Your task to perform on an android device: Search for macbook air on walmart.com, select the first entry, add it to the cart, then select checkout. Image 0: 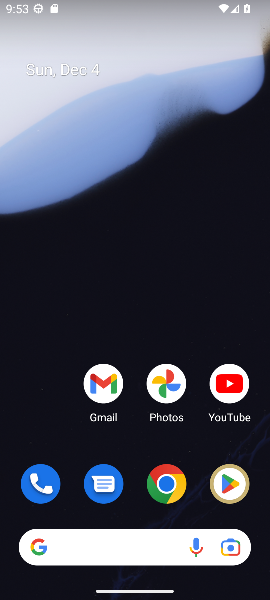
Step 0: click (169, 486)
Your task to perform on an android device: Search for macbook air on walmart.com, select the first entry, add it to the cart, then select checkout. Image 1: 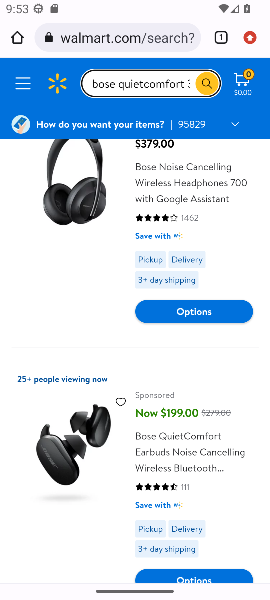
Step 1: click (141, 83)
Your task to perform on an android device: Search for macbook air on walmart.com, select the first entry, add it to the cart, then select checkout. Image 2: 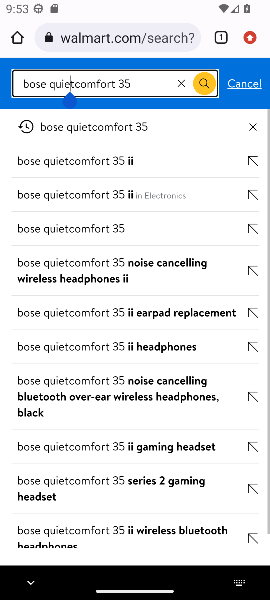
Step 2: click (184, 83)
Your task to perform on an android device: Search for macbook air on walmart.com, select the first entry, add it to the cart, then select checkout. Image 3: 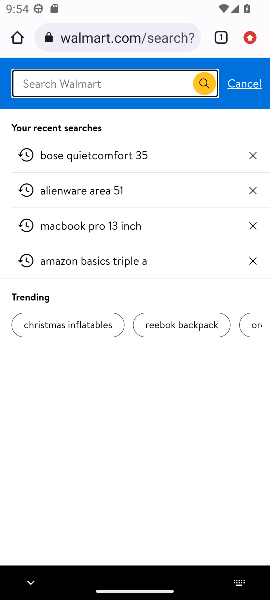
Step 3: type "macbook air"
Your task to perform on an android device: Search for macbook air on walmart.com, select the first entry, add it to the cart, then select checkout. Image 4: 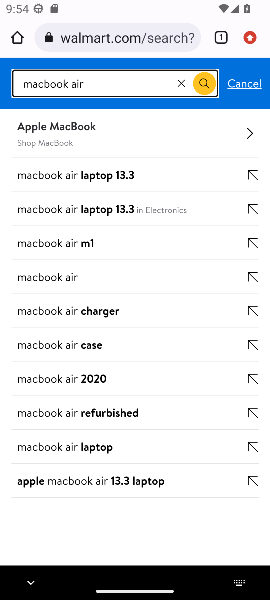
Step 4: click (200, 85)
Your task to perform on an android device: Search for macbook air on walmart.com, select the first entry, add it to the cart, then select checkout. Image 5: 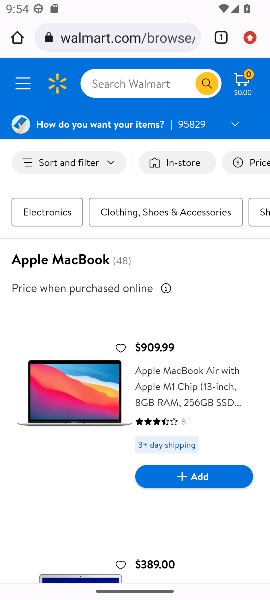
Step 5: drag from (150, 345) to (158, 215)
Your task to perform on an android device: Search for macbook air on walmart.com, select the first entry, add it to the cart, then select checkout. Image 6: 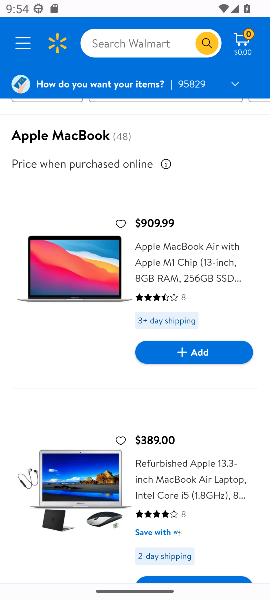
Step 6: click (187, 351)
Your task to perform on an android device: Search for macbook air on walmart.com, select the first entry, add it to the cart, then select checkout. Image 7: 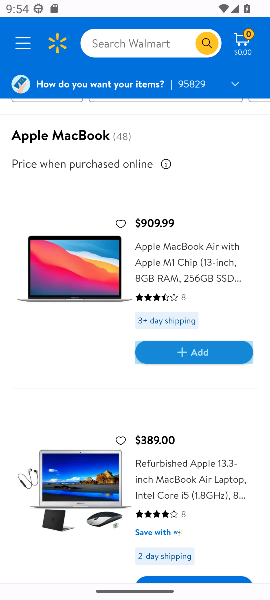
Step 7: click (191, 352)
Your task to perform on an android device: Search for macbook air on walmart.com, select the first entry, add it to the cart, then select checkout. Image 8: 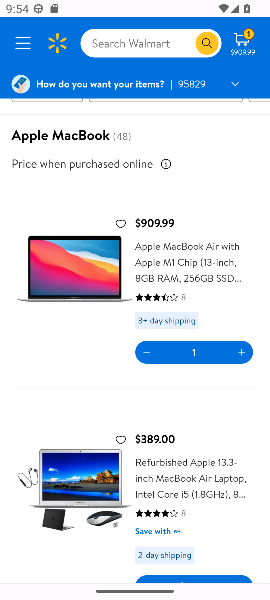
Step 8: click (244, 43)
Your task to perform on an android device: Search for macbook air on walmart.com, select the first entry, add it to the cart, then select checkout. Image 9: 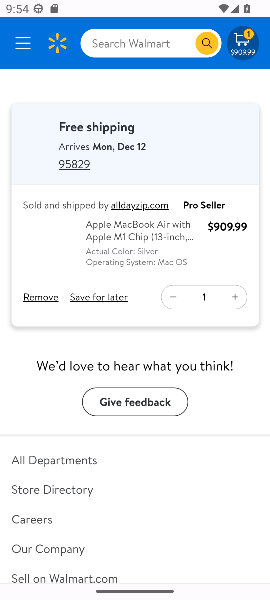
Step 9: drag from (157, 348) to (161, 413)
Your task to perform on an android device: Search for macbook air on walmart.com, select the first entry, add it to the cart, then select checkout. Image 10: 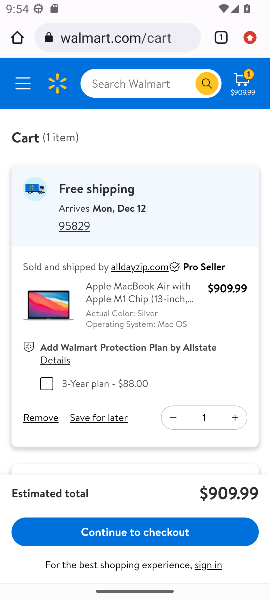
Step 10: click (151, 538)
Your task to perform on an android device: Search for macbook air on walmart.com, select the first entry, add it to the cart, then select checkout. Image 11: 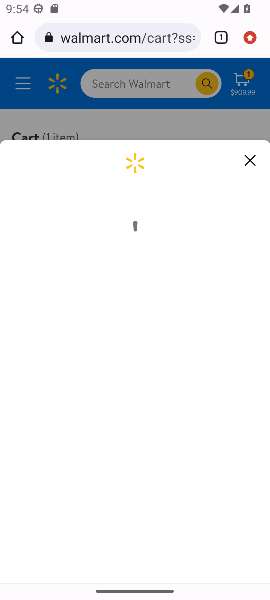
Step 11: task complete